Your task to perform on an android device: turn smart compose on in the gmail app Image 0: 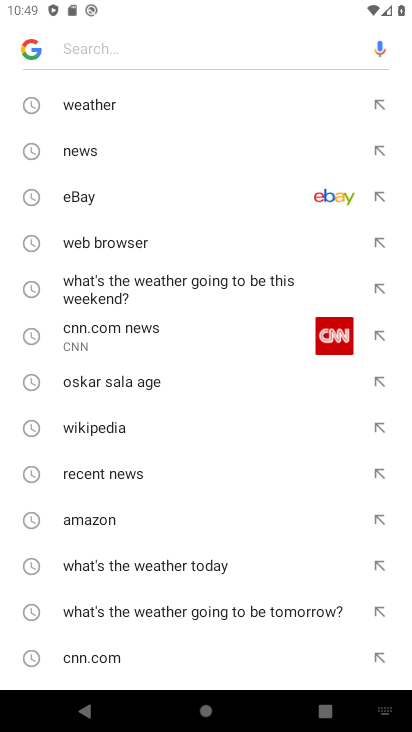
Step 0: press home button
Your task to perform on an android device: turn smart compose on in the gmail app Image 1: 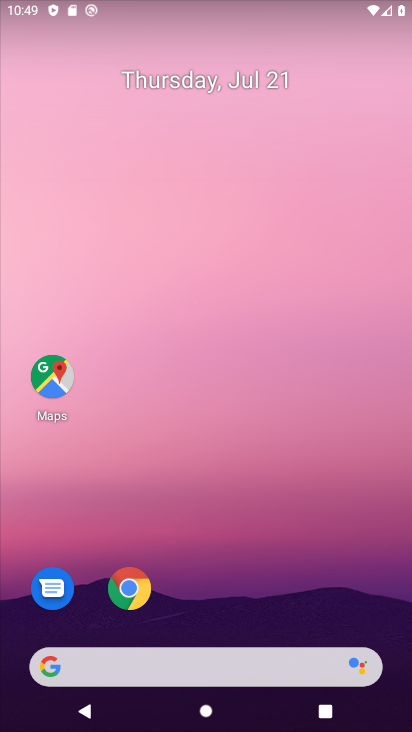
Step 1: drag from (204, 623) to (212, 74)
Your task to perform on an android device: turn smart compose on in the gmail app Image 2: 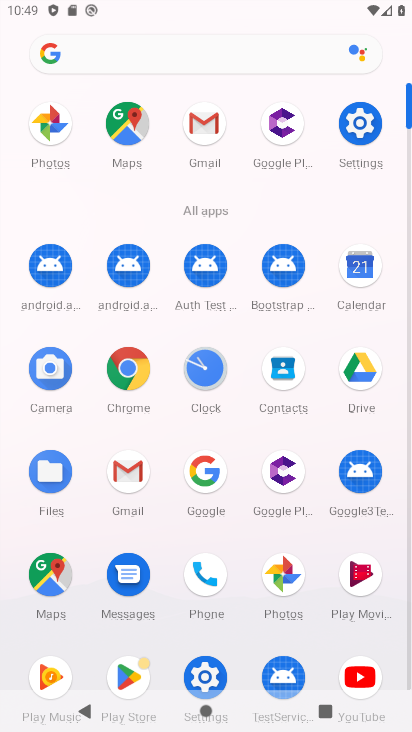
Step 2: click (203, 114)
Your task to perform on an android device: turn smart compose on in the gmail app Image 3: 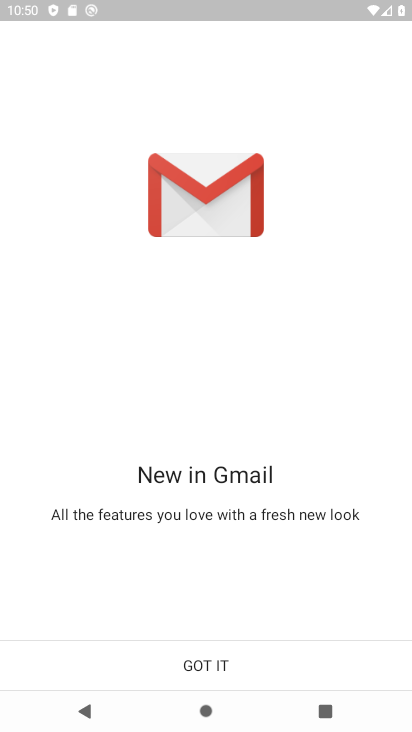
Step 3: click (210, 663)
Your task to perform on an android device: turn smart compose on in the gmail app Image 4: 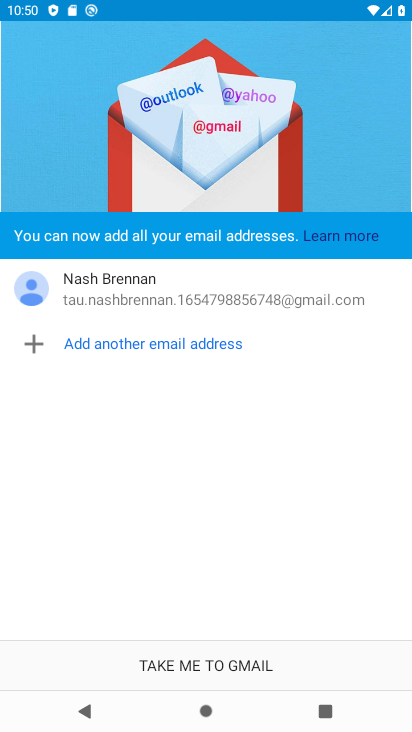
Step 4: click (199, 660)
Your task to perform on an android device: turn smart compose on in the gmail app Image 5: 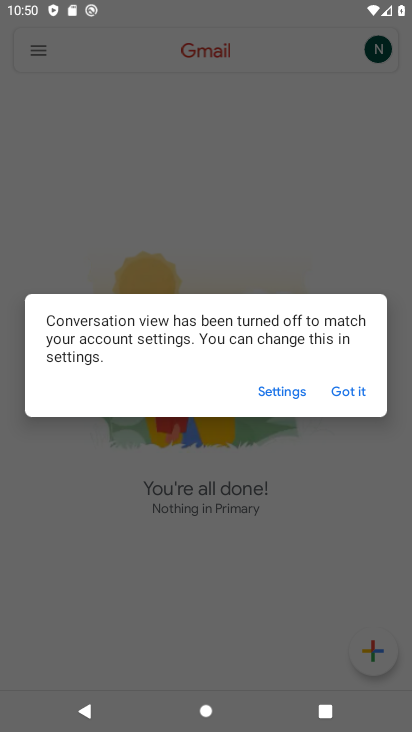
Step 5: click (343, 392)
Your task to perform on an android device: turn smart compose on in the gmail app Image 6: 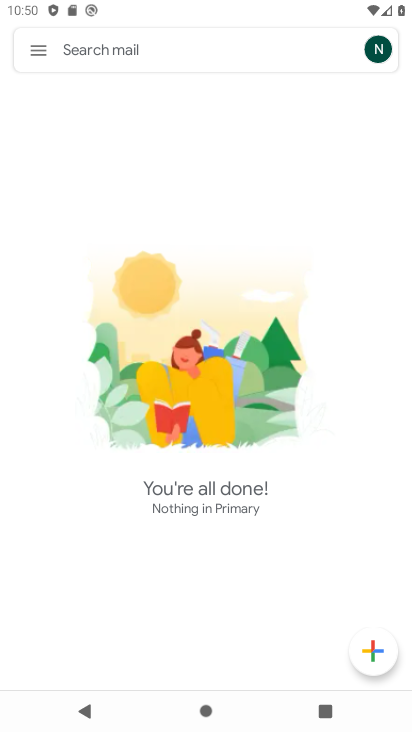
Step 6: click (30, 47)
Your task to perform on an android device: turn smart compose on in the gmail app Image 7: 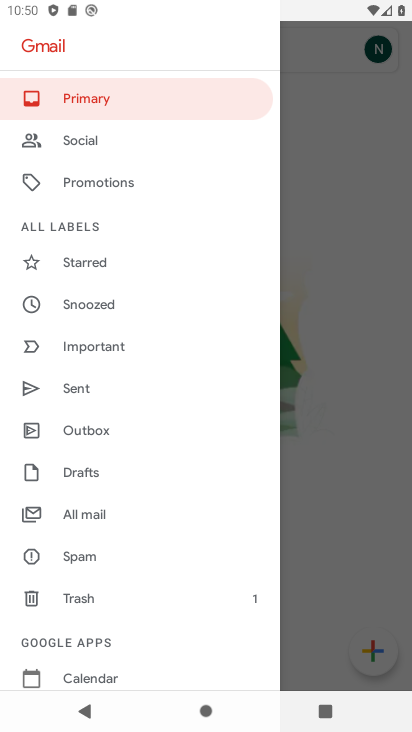
Step 7: drag from (123, 650) to (112, 172)
Your task to perform on an android device: turn smart compose on in the gmail app Image 8: 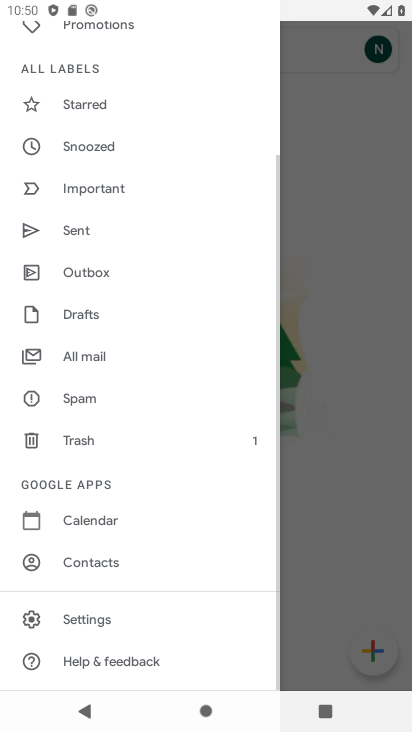
Step 8: click (119, 608)
Your task to perform on an android device: turn smart compose on in the gmail app Image 9: 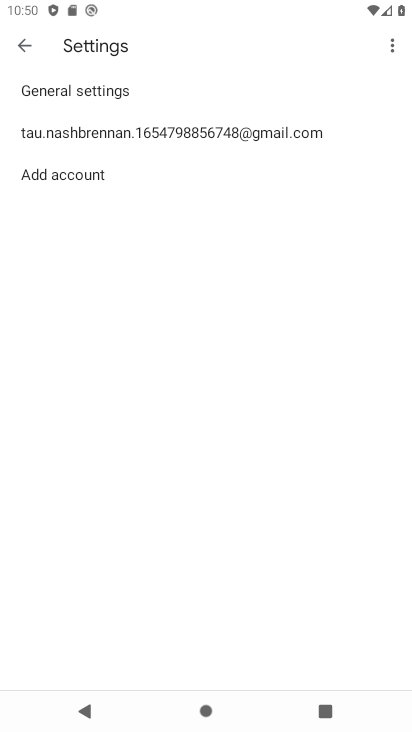
Step 9: click (144, 125)
Your task to perform on an android device: turn smart compose on in the gmail app Image 10: 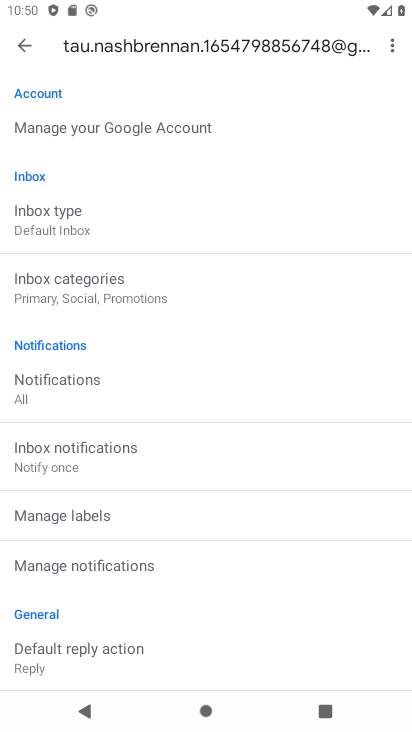
Step 10: task complete